Your task to perform on an android device: Open Google Maps Image 0: 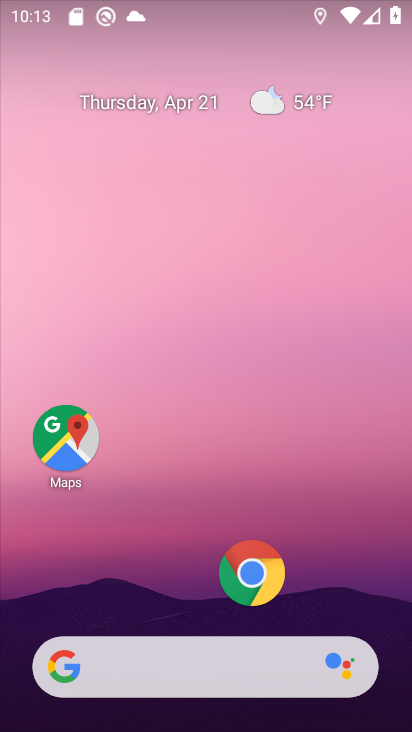
Step 0: click (69, 441)
Your task to perform on an android device: Open Google Maps Image 1: 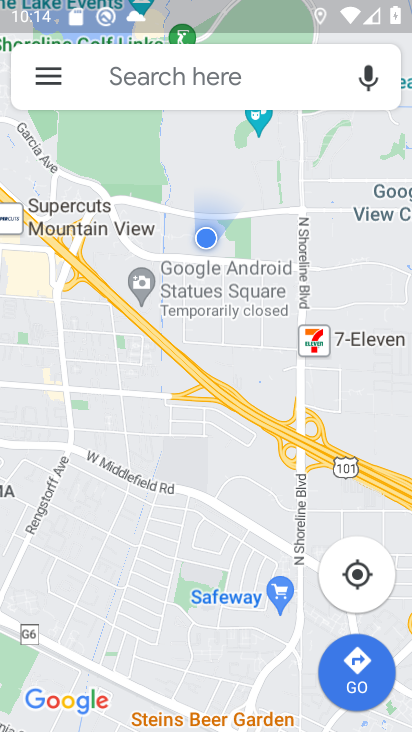
Step 1: task complete